Your task to perform on an android device: Open sound settings Image 0: 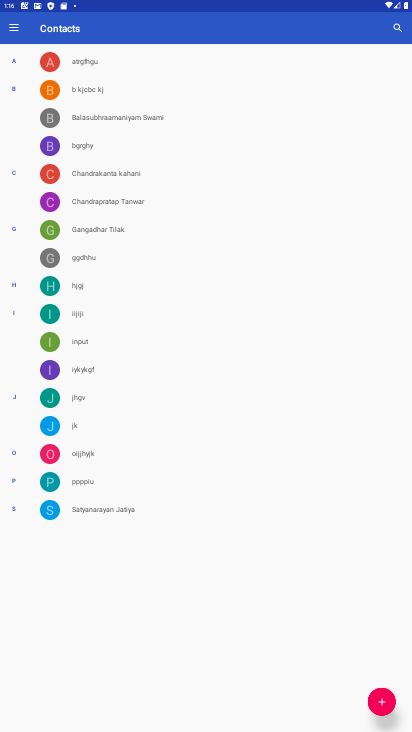
Step 0: press home button
Your task to perform on an android device: Open sound settings Image 1: 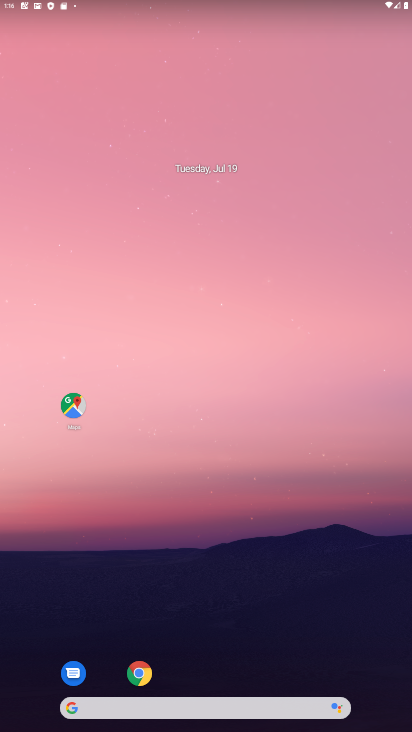
Step 1: drag from (195, 692) to (165, 240)
Your task to perform on an android device: Open sound settings Image 2: 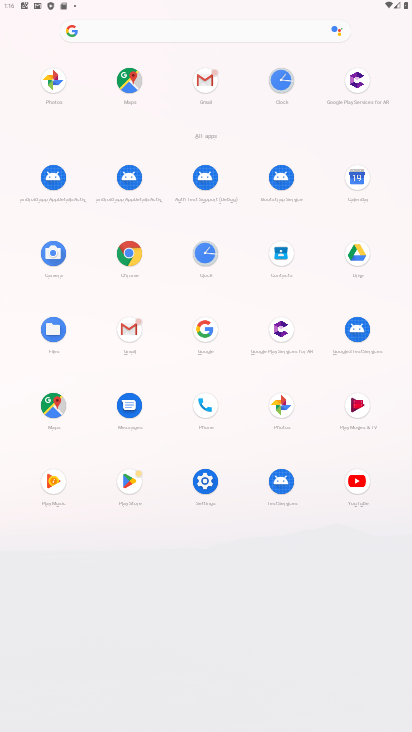
Step 2: click (202, 482)
Your task to perform on an android device: Open sound settings Image 3: 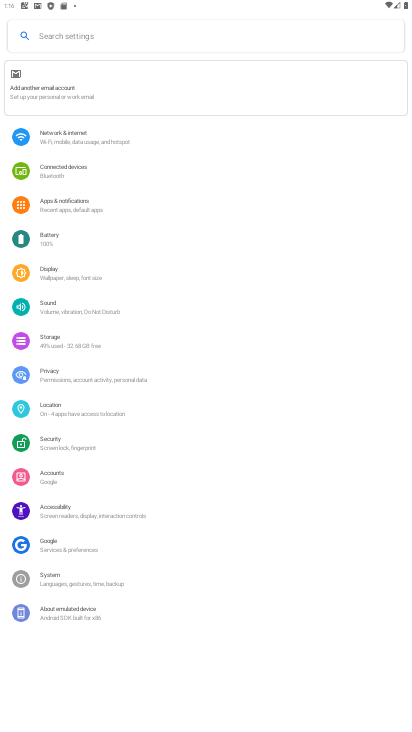
Step 3: click (64, 309)
Your task to perform on an android device: Open sound settings Image 4: 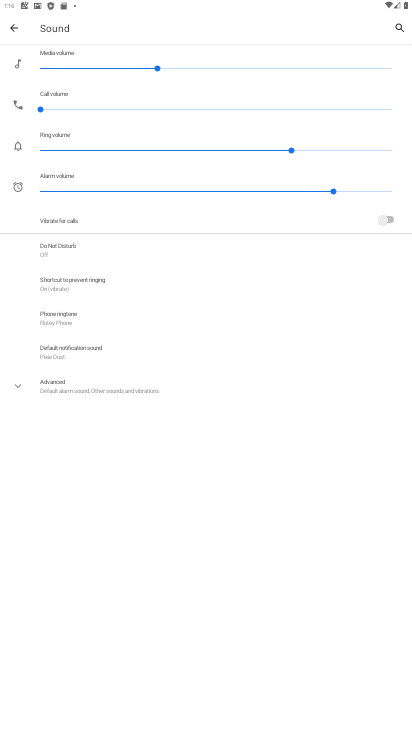
Step 4: click (81, 395)
Your task to perform on an android device: Open sound settings Image 5: 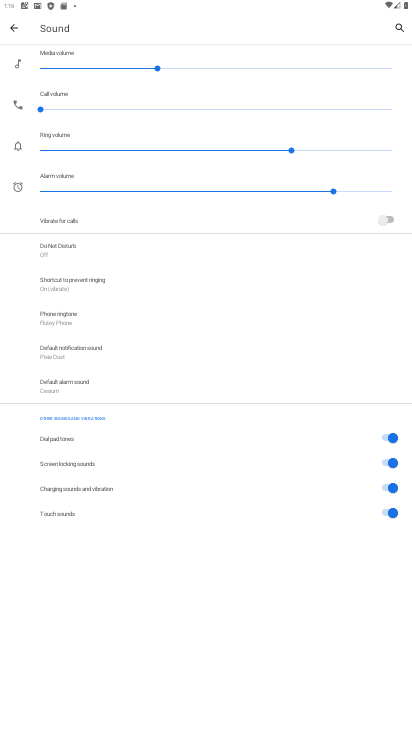
Step 5: task complete